Your task to perform on an android device: Go to battery settings Image 0: 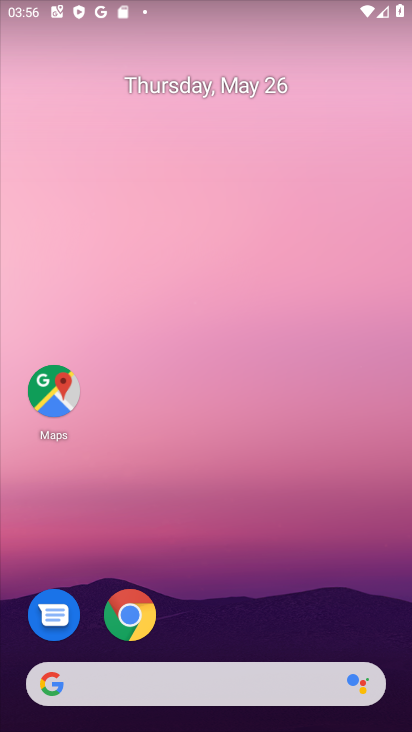
Step 0: click (187, 688)
Your task to perform on an android device: Go to battery settings Image 1: 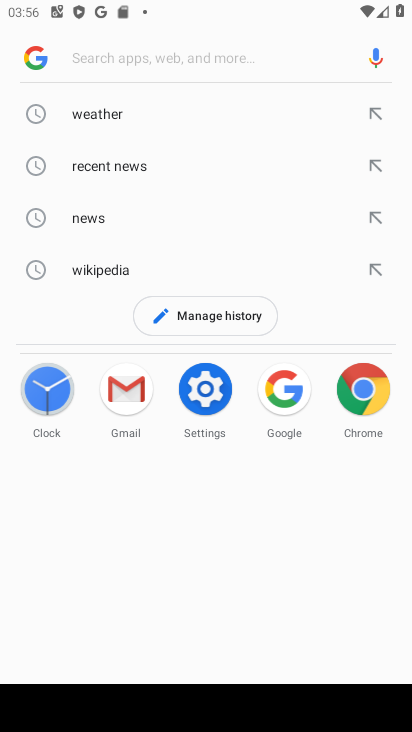
Step 1: task complete